Your task to perform on an android device: delete location history Image 0: 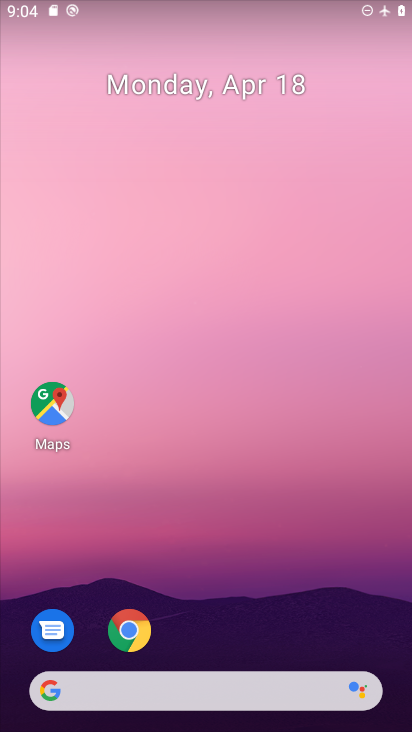
Step 0: drag from (247, 661) to (312, 61)
Your task to perform on an android device: delete location history Image 1: 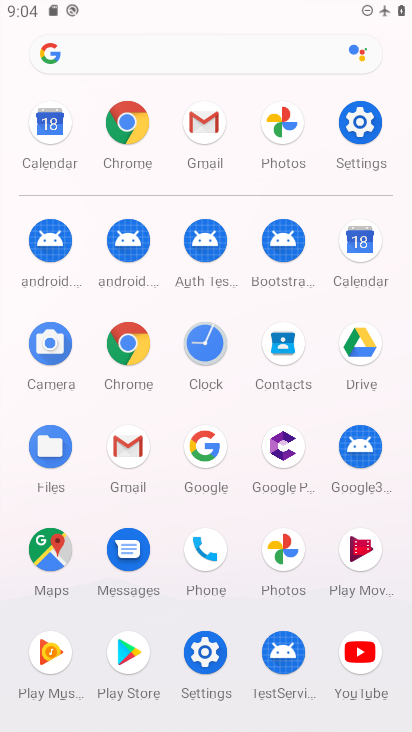
Step 1: click (54, 556)
Your task to perform on an android device: delete location history Image 2: 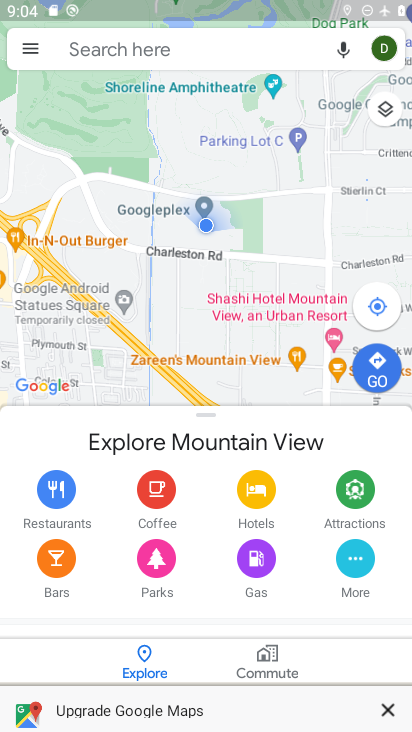
Step 2: click (25, 55)
Your task to perform on an android device: delete location history Image 3: 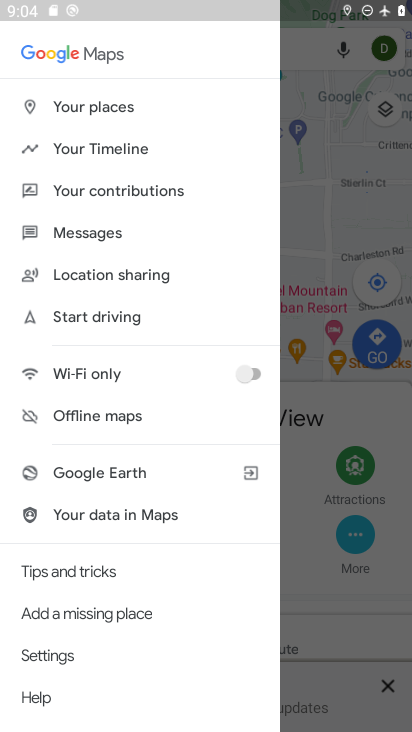
Step 3: click (131, 147)
Your task to perform on an android device: delete location history Image 4: 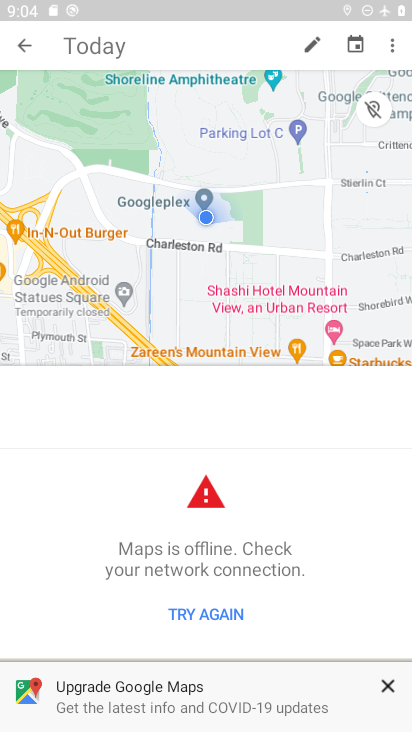
Step 4: click (393, 38)
Your task to perform on an android device: delete location history Image 5: 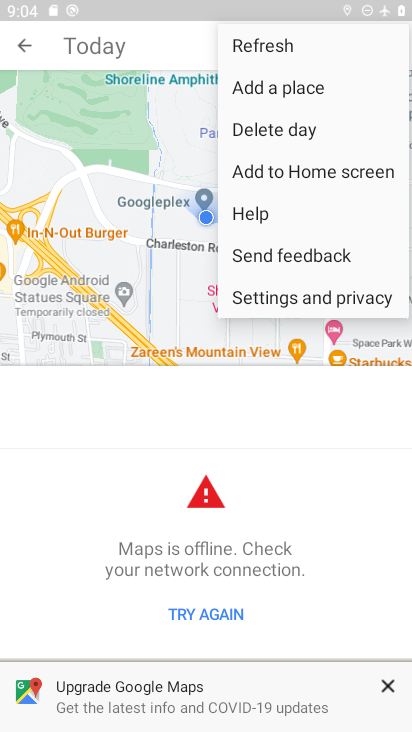
Step 5: click (305, 299)
Your task to perform on an android device: delete location history Image 6: 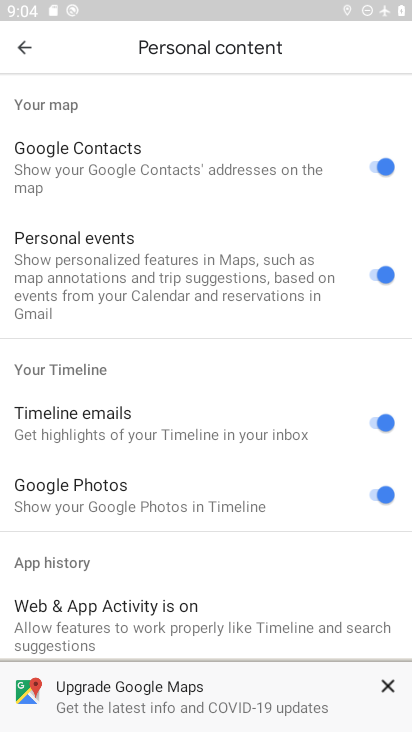
Step 6: drag from (168, 538) to (268, 2)
Your task to perform on an android device: delete location history Image 7: 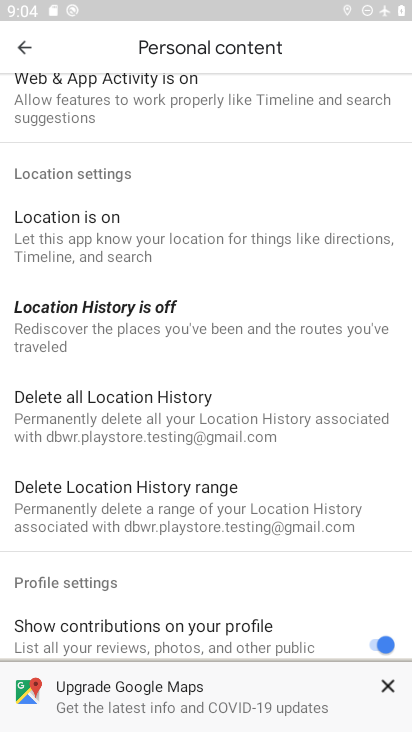
Step 7: click (227, 357)
Your task to perform on an android device: delete location history Image 8: 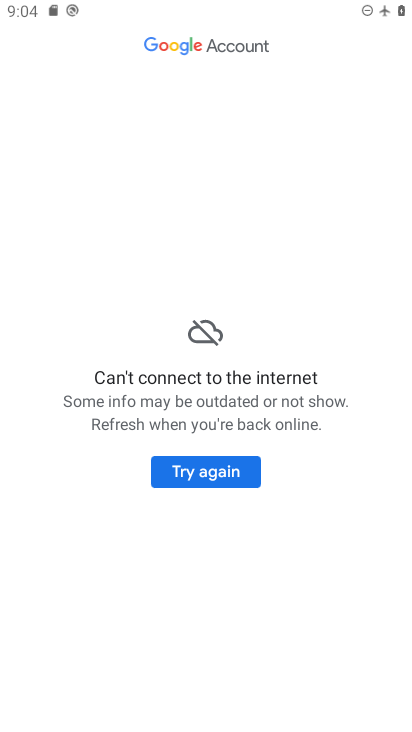
Step 8: click (229, 425)
Your task to perform on an android device: delete location history Image 9: 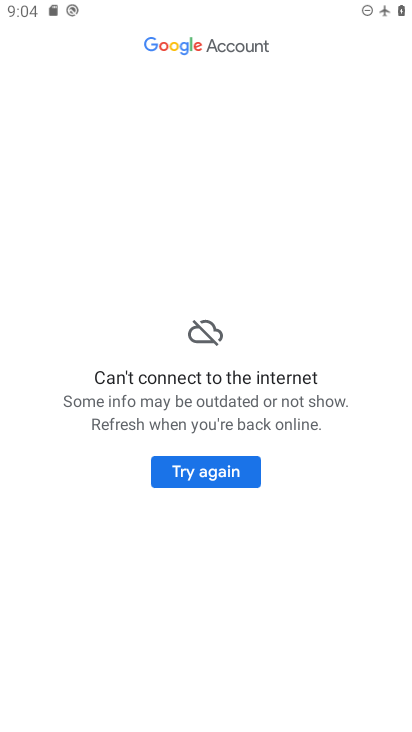
Step 9: press back button
Your task to perform on an android device: delete location history Image 10: 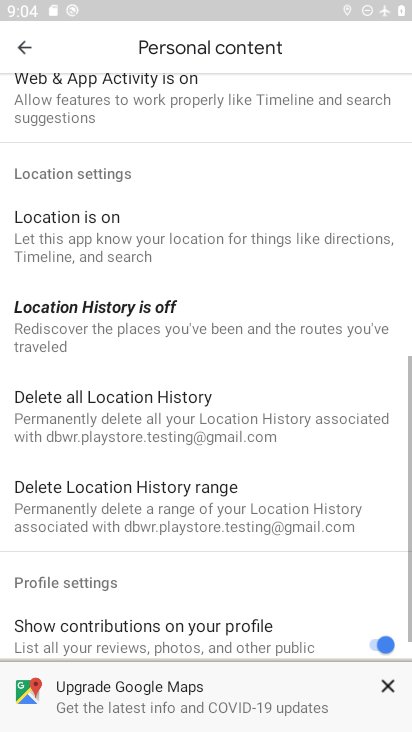
Step 10: click (162, 427)
Your task to perform on an android device: delete location history Image 11: 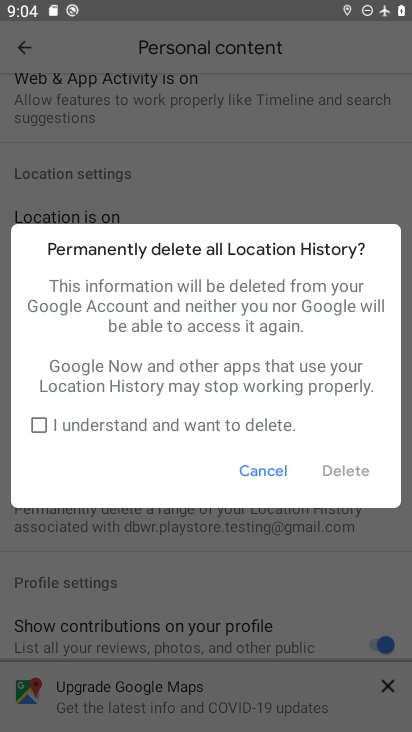
Step 11: click (34, 424)
Your task to perform on an android device: delete location history Image 12: 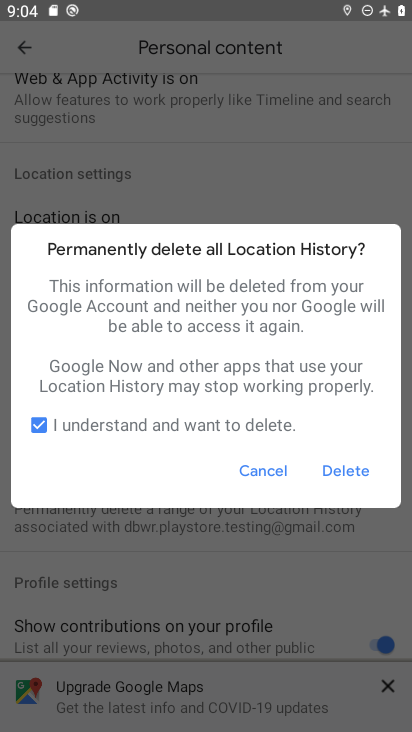
Step 12: click (362, 469)
Your task to perform on an android device: delete location history Image 13: 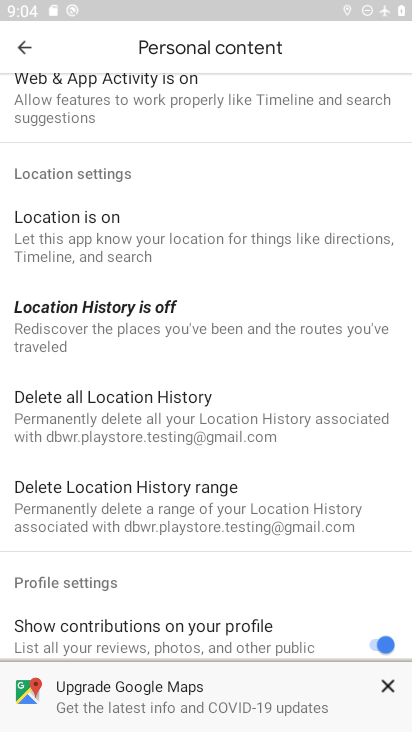
Step 13: task complete